Your task to perform on an android device: Open calendar and show me the second week of next month Image 0: 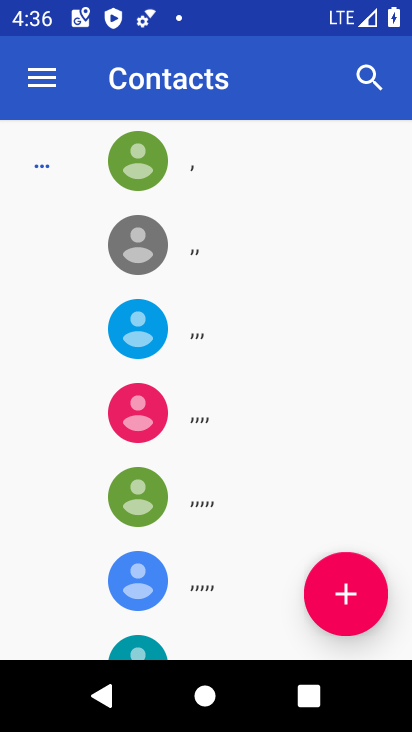
Step 0: press home button
Your task to perform on an android device: Open calendar and show me the second week of next month Image 1: 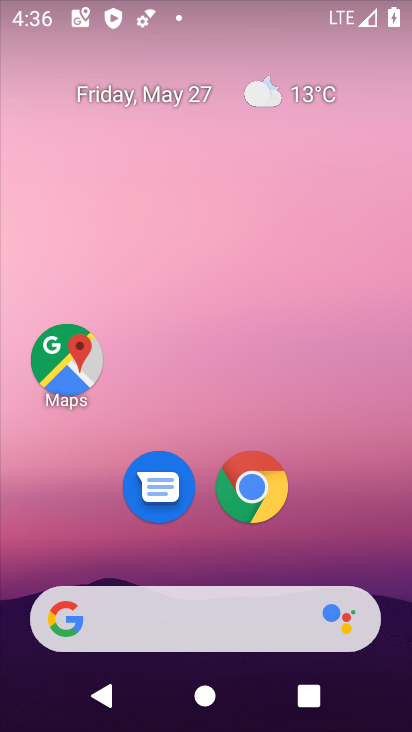
Step 1: drag from (359, 502) to (302, 129)
Your task to perform on an android device: Open calendar and show me the second week of next month Image 2: 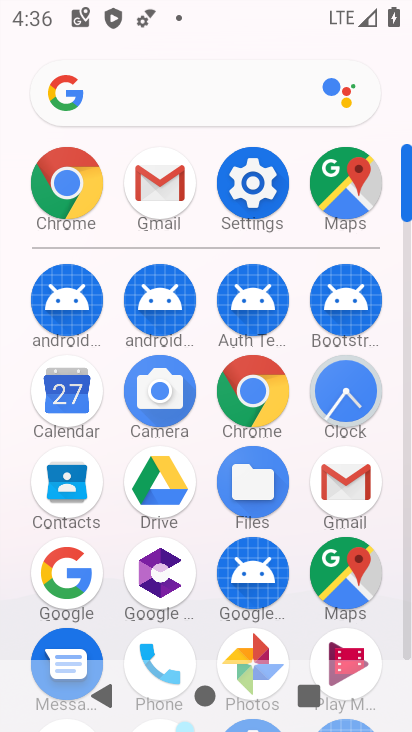
Step 2: click (65, 402)
Your task to perform on an android device: Open calendar and show me the second week of next month Image 3: 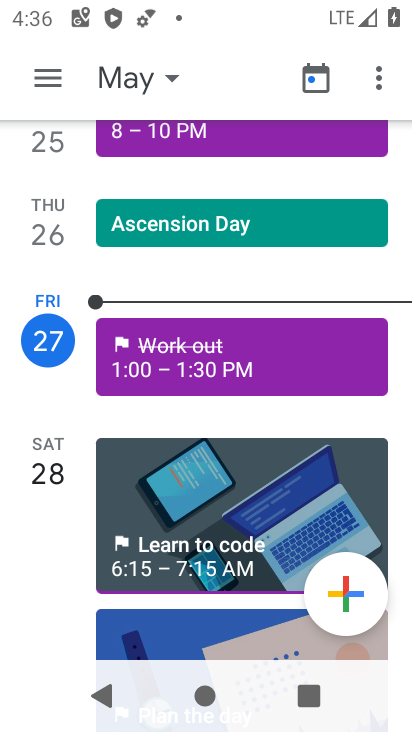
Step 3: click (134, 81)
Your task to perform on an android device: Open calendar and show me the second week of next month Image 4: 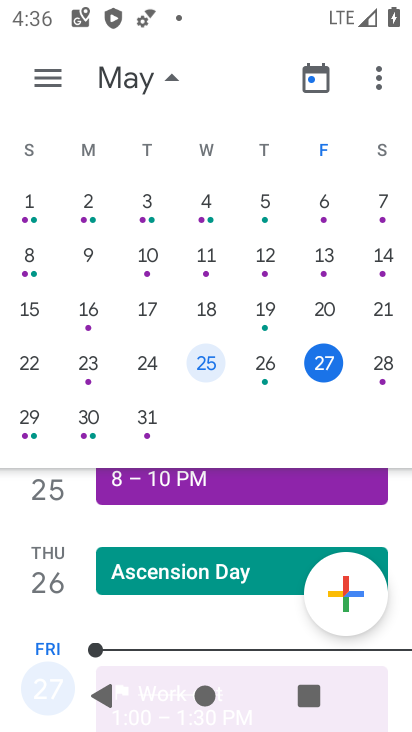
Step 4: drag from (376, 243) to (36, 262)
Your task to perform on an android device: Open calendar and show me the second week of next month Image 5: 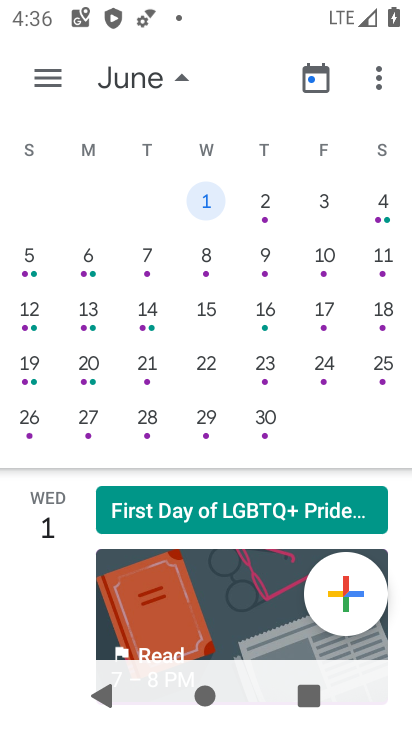
Step 5: click (36, 316)
Your task to perform on an android device: Open calendar and show me the second week of next month Image 6: 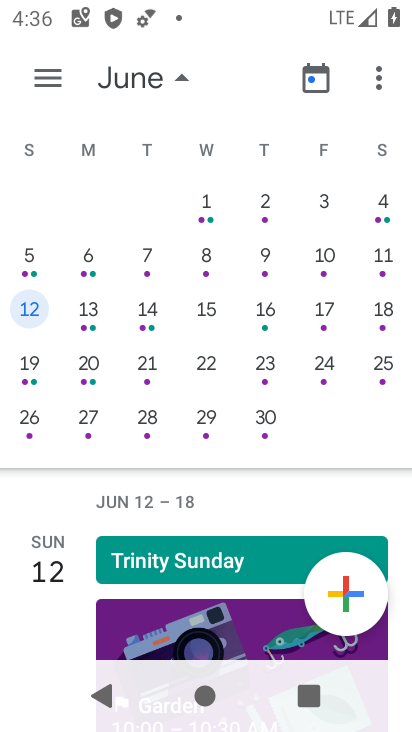
Step 6: click (49, 65)
Your task to perform on an android device: Open calendar and show me the second week of next month Image 7: 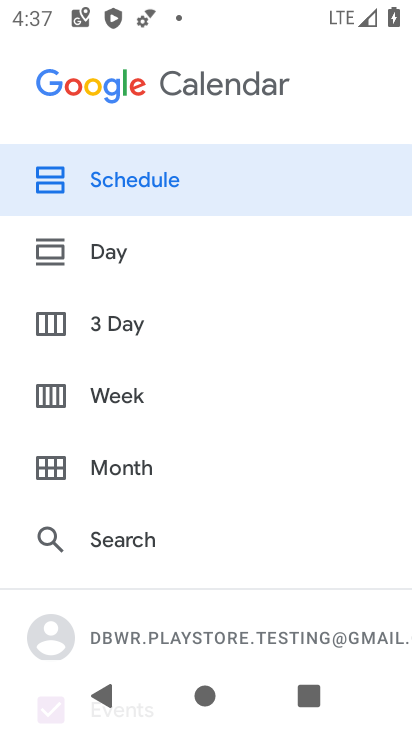
Step 7: click (122, 383)
Your task to perform on an android device: Open calendar and show me the second week of next month Image 8: 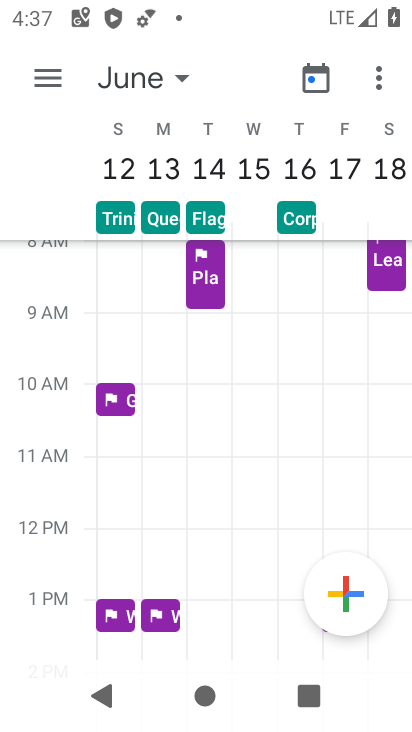
Step 8: task complete